Your task to perform on an android device: show emergency info Image 0: 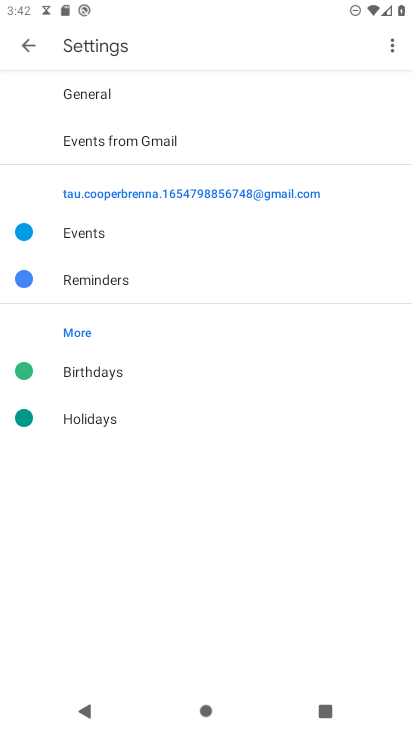
Step 0: press home button
Your task to perform on an android device: show emergency info Image 1: 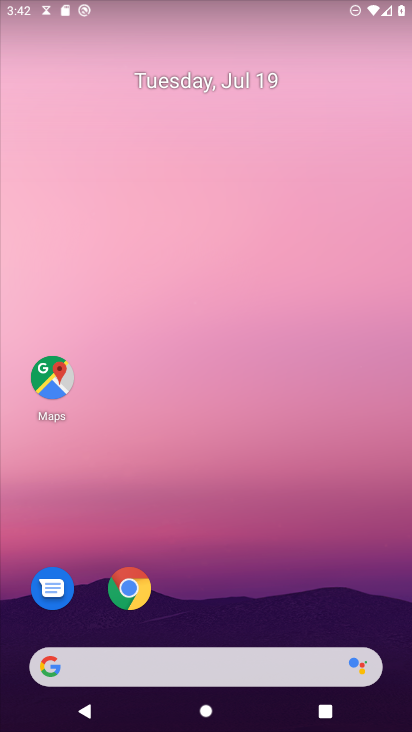
Step 1: drag from (182, 608) to (256, 40)
Your task to perform on an android device: show emergency info Image 2: 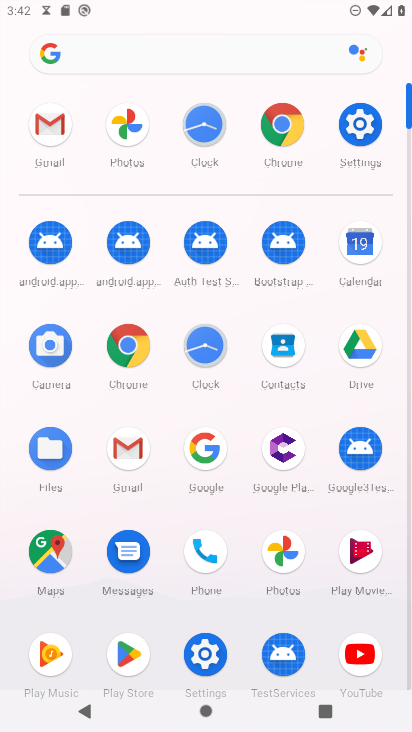
Step 2: click (361, 114)
Your task to perform on an android device: show emergency info Image 3: 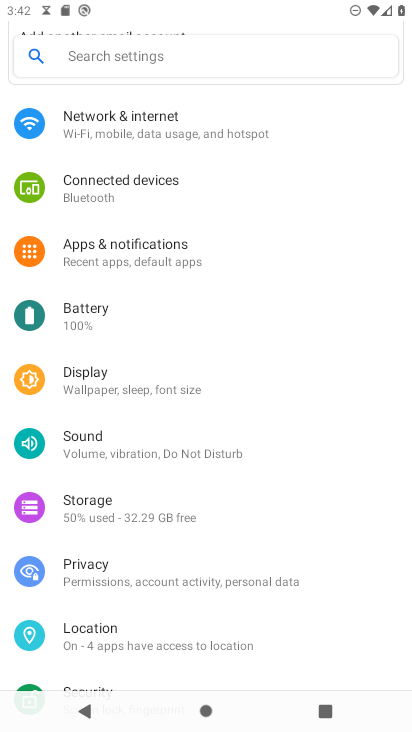
Step 3: drag from (208, 544) to (236, 171)
Your task to perform on an android device: show emergency info Image 4: 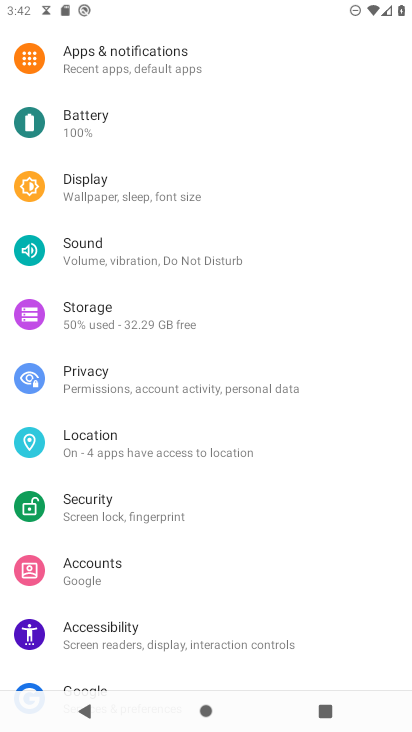
Step 4: drag from (187, 595) to (207, 223)
Your task to perform on an android device: show emergency info Image 5: 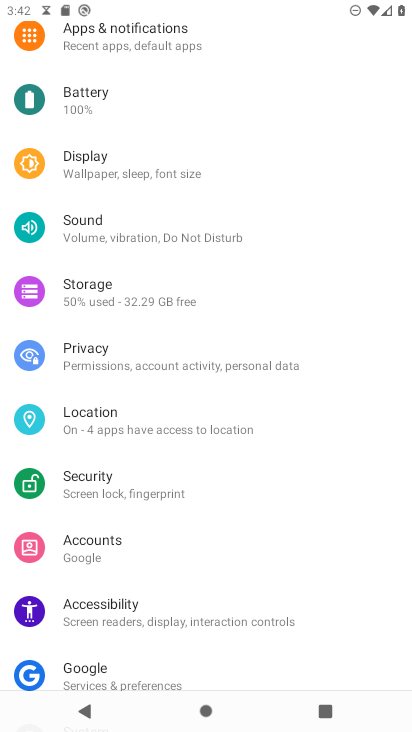
Step 5: drag from (158, 615) to (223, 92)
Your task to perform on an android device: show emergency info Image 6: 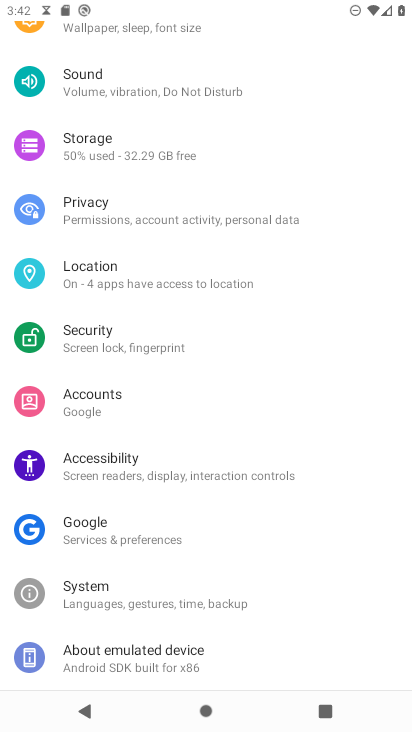
Step 6: click (161, 657)
Your task to perform on an android device: show emergency info Image 7: 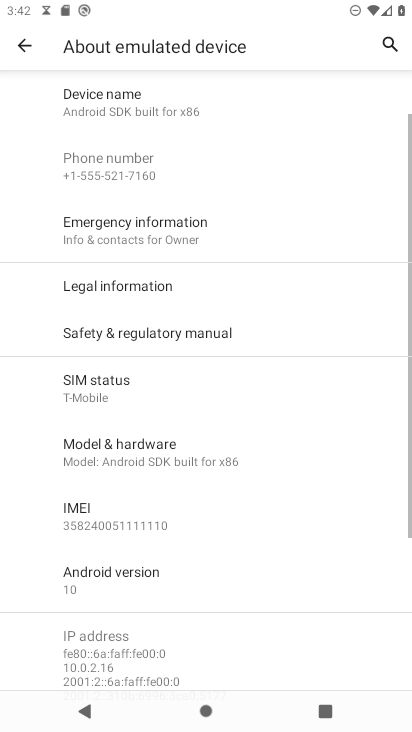
Step 7: click (138, 212)
Your task to perform on an android device: show emergency info Image 8: 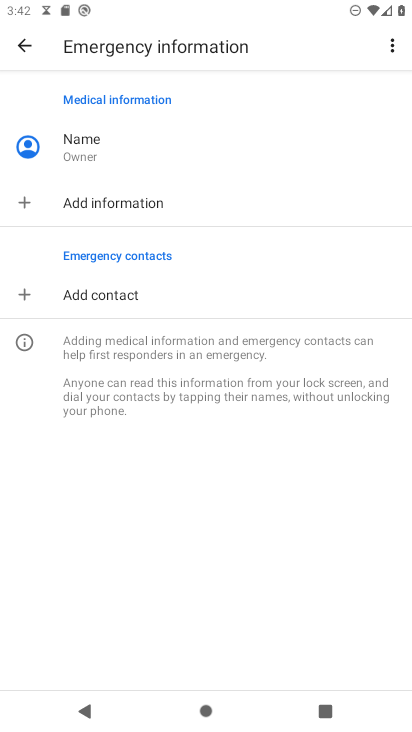
Step 8: task complete